Your task to perform on an android device: all mails in gmail Image 0: 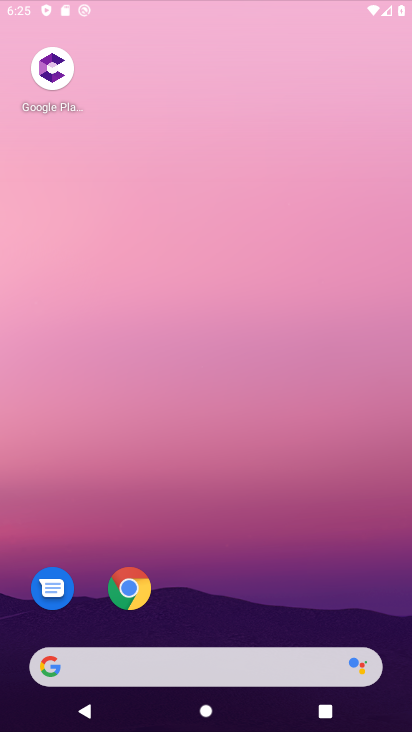
Step 0: click (266, 101)
Your task to perform on an android device: all mails in gmail Image 1: 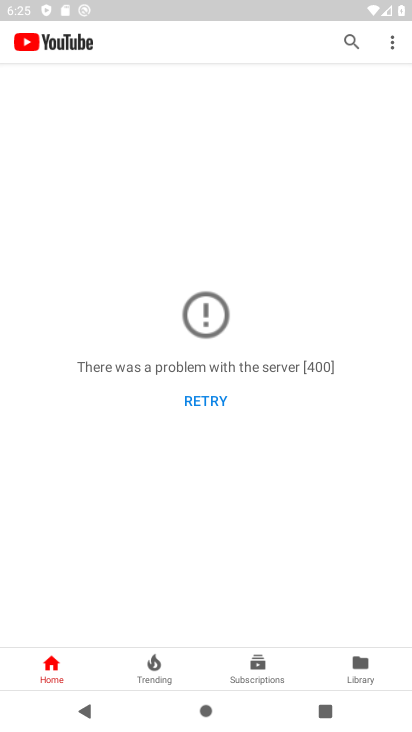
Step 1: press home button
Your task to perform on an android device: all mails in gmail Image 2: 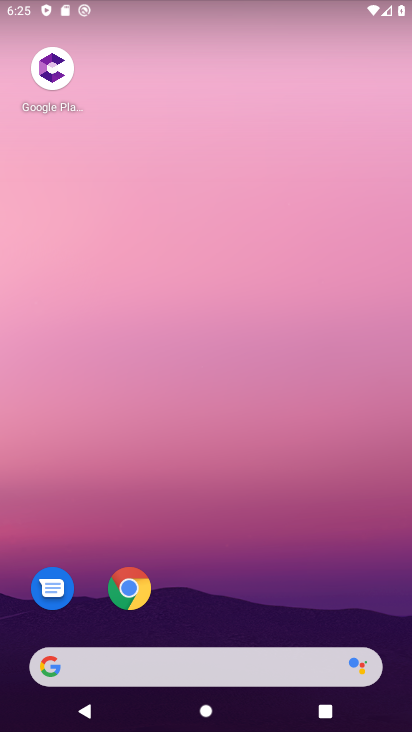
Step 2: drag from (173, 640) to (180, 0)
Your task to perform on an android device: all mails in gmail Image 3: 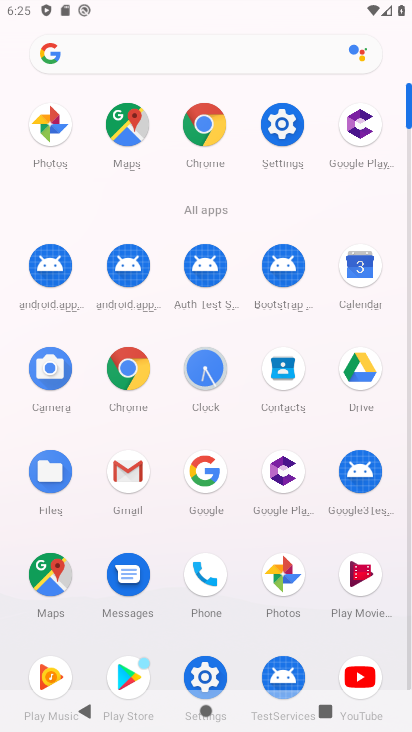
Step 3: click (132, 456)
Your task to perform on an android device: all mails in gmail Image 4: 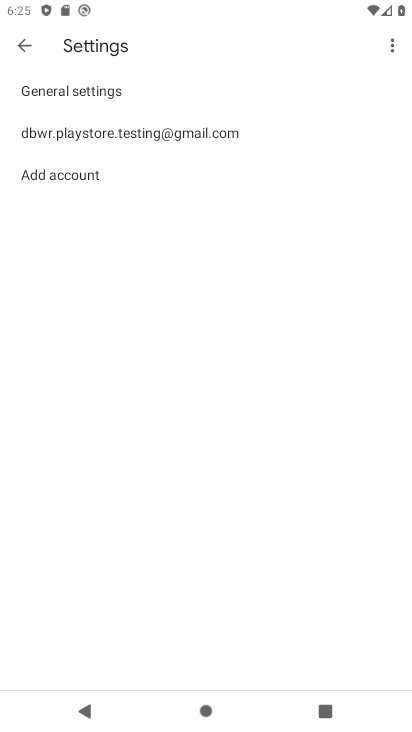
Step 4: click (30, 46)
Your task to perform on an android device: all mails in gmail Image 5: 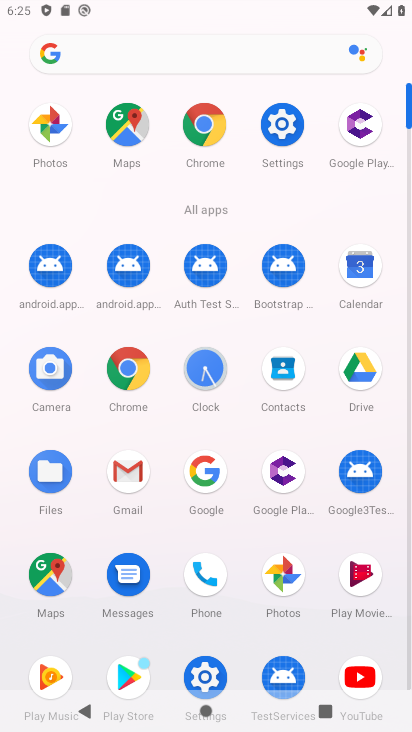
Step 5: click (137, 478)
Your task to perform on an android device: all mails in gmail Image 6: 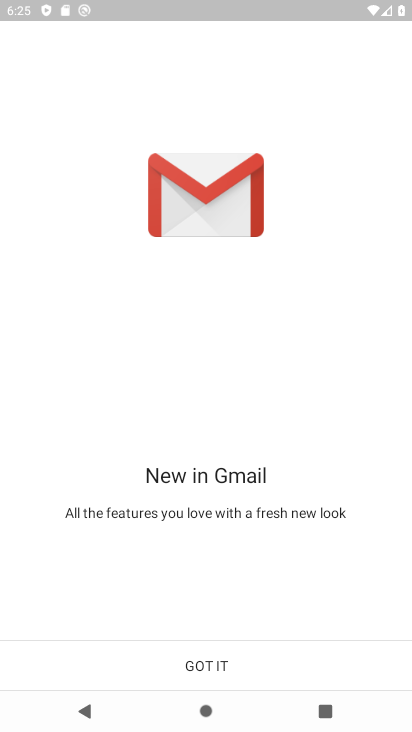
Step 6: click (184, 672)
Your task to perform on an android device: all mails in gmail Image 7: 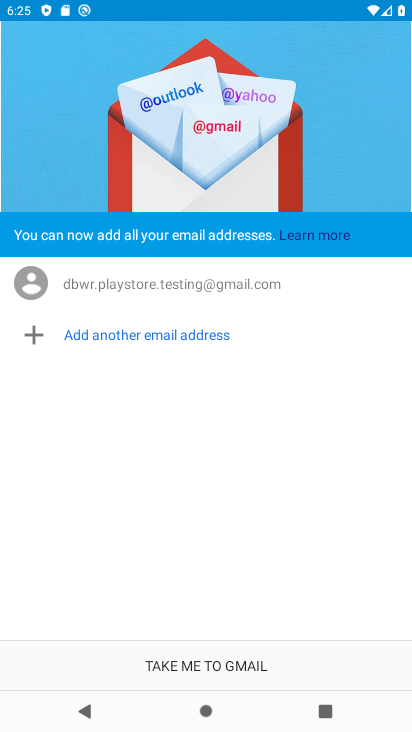
Step 7: click (184, 672)
Your task to perform on an android device: all mails in gmail Image 8: 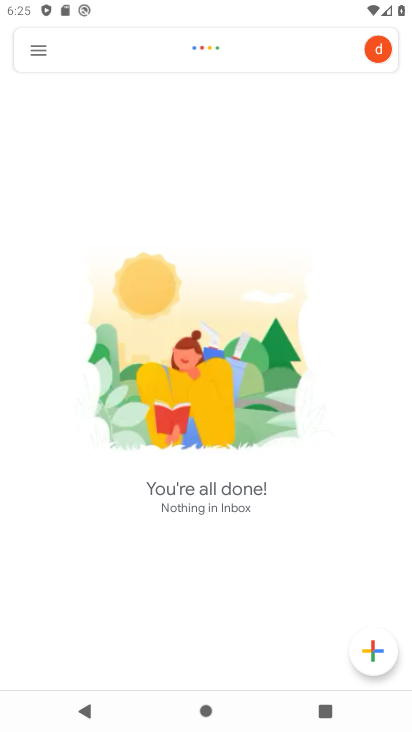
Step 8: click (46, 36)
Your task to perform on an android device: all mails in gmail Image 9: 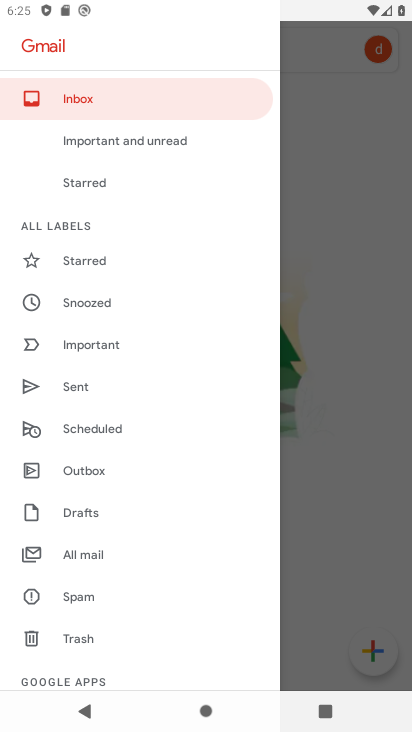
Step 9: click (71, 552)
Your task to perform on an android device: all mails in gmail Image 10: 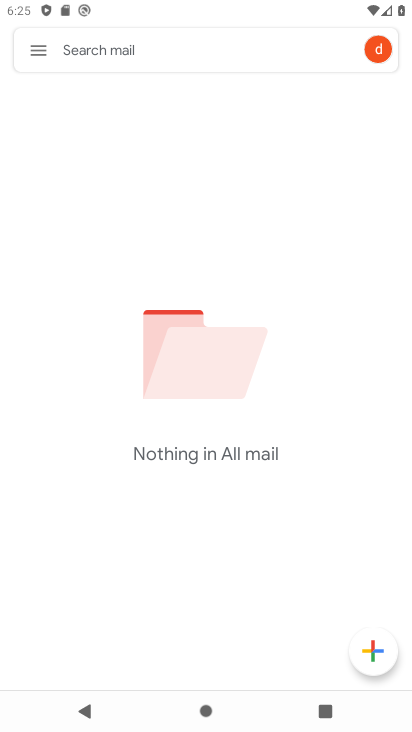
Step 10: task complete